Your task to perform on an android device: add a label to a message in the gmail app Image 0: 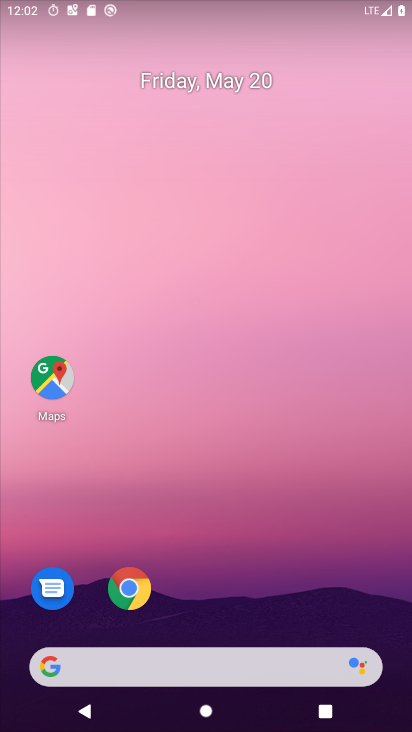
Step 0: drag from (188, 667) to (266, 271)
Your task to perform on an android device: add a label to a message in the gmail app Image 1: 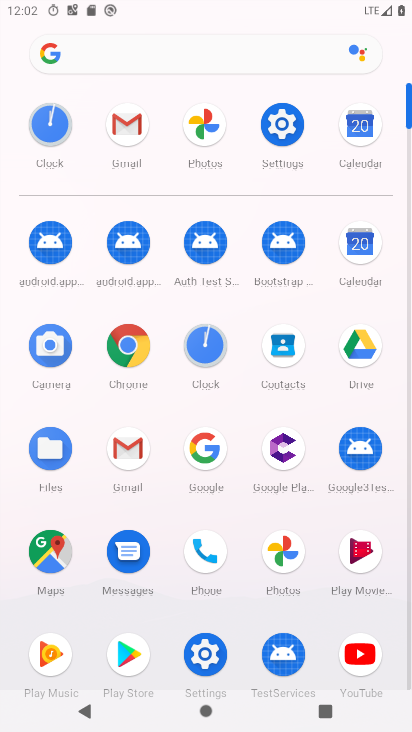
Step 1: click (130, 135)
Your task to perform on an android device: add a label to a message in the gmail app Image 2: 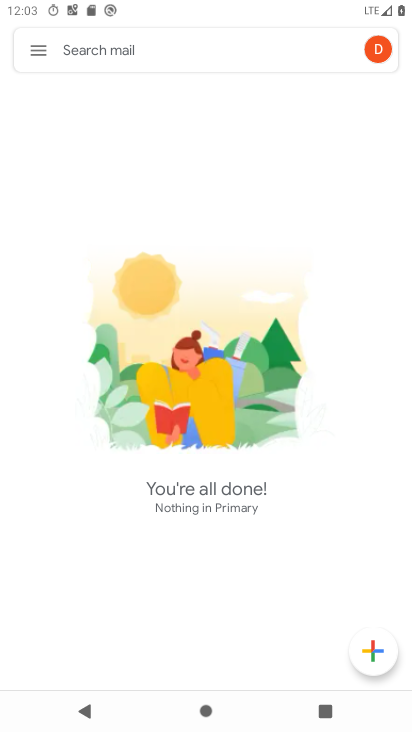
Step 2: task complete